Your task to perform on an android device: turn on translation in the chrome app Image 0: 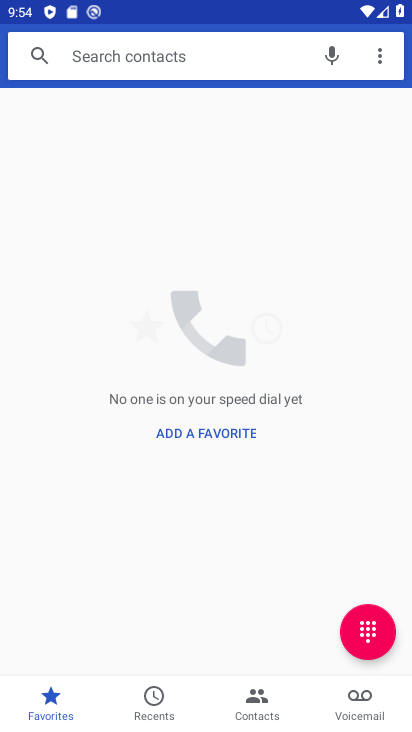
Step 0: press back button
Your task to perform on an android device: turn on translation in the chrome app Image 1: 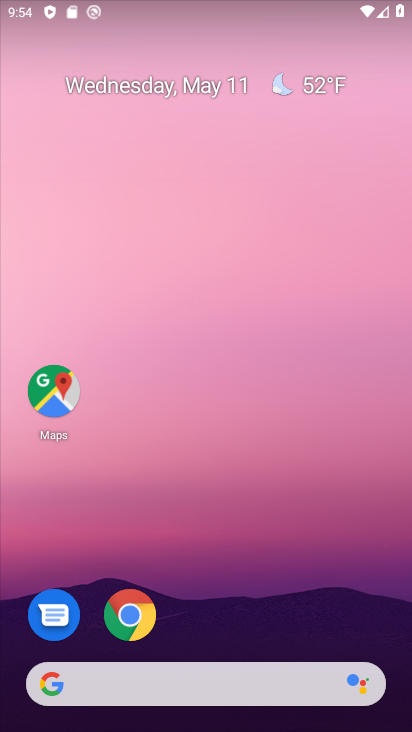
Step 1: click (129, 615)
Your task to perform on an android device: turn on translation in the chrome app Image 2: 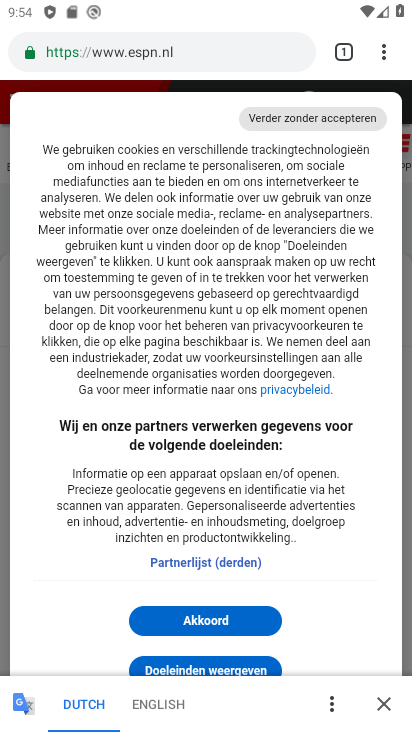
Step 2: click (386, 52)
Your task to perform on an android device: turn on translation in the chrome app Image 3: 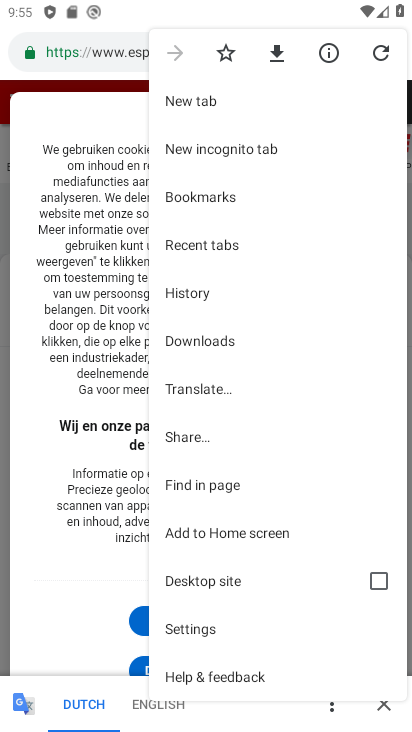
Step 3: click (193, 629)
Your task to perform on an android device: turn on translation in the chrome app Image 4: 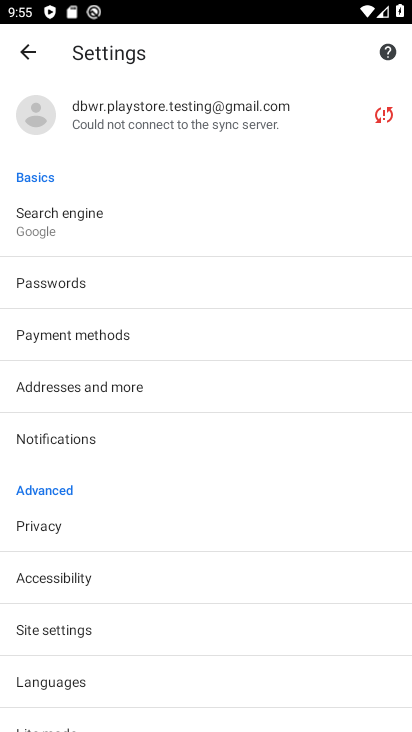
Step 4: click (63, 681)
Your task to perform on an android device: turn on translation in the chrome app Image 5: 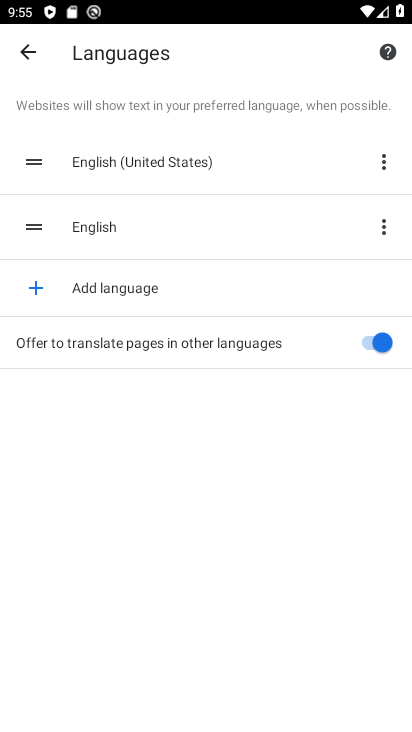
Step 5: task complete